Your task to perform on an android device: Go to network settings Image 0: 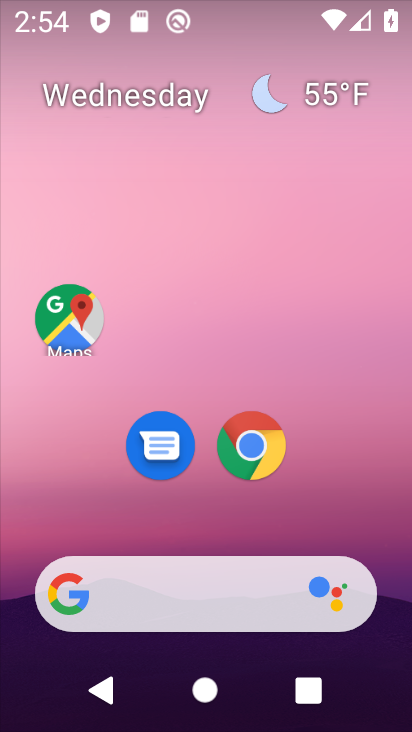
Step 0: drag from (359, 480) to (294, 86)
Your task to perform on an android device: Go to network settings Image 1: 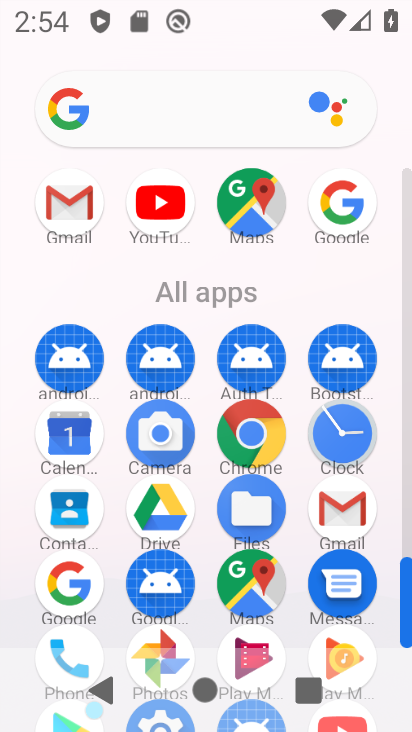
Step 1: drag from (299, 518) to (287, 179)
Your task to perform on an android device: Go to network settings Image 2: 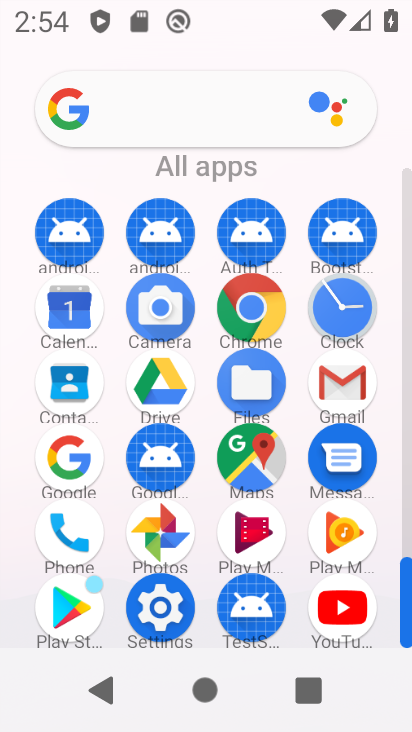
Step 2: click (162, 604)
Your task to perform on an android device: Go to network settings Image 3: 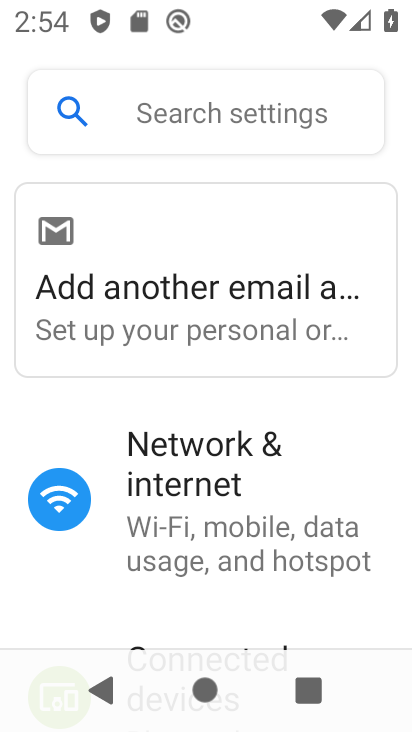
Step 3: click (168, 467)
Your task to perform on an android device: Go to network settings Image 4: 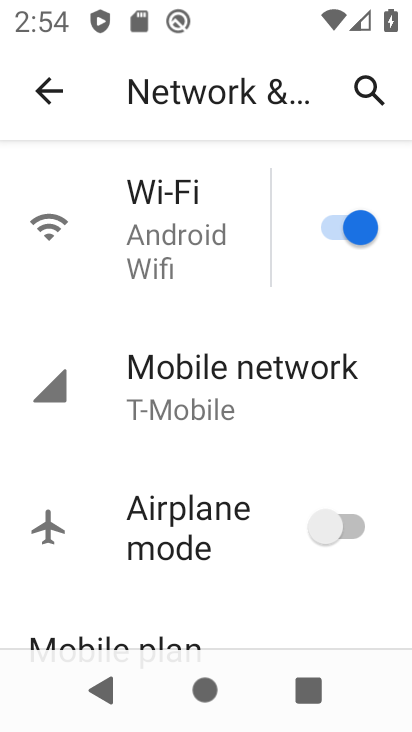
Step 4: task complete